Your task to perform on an android device: Go to location settings Image 0: 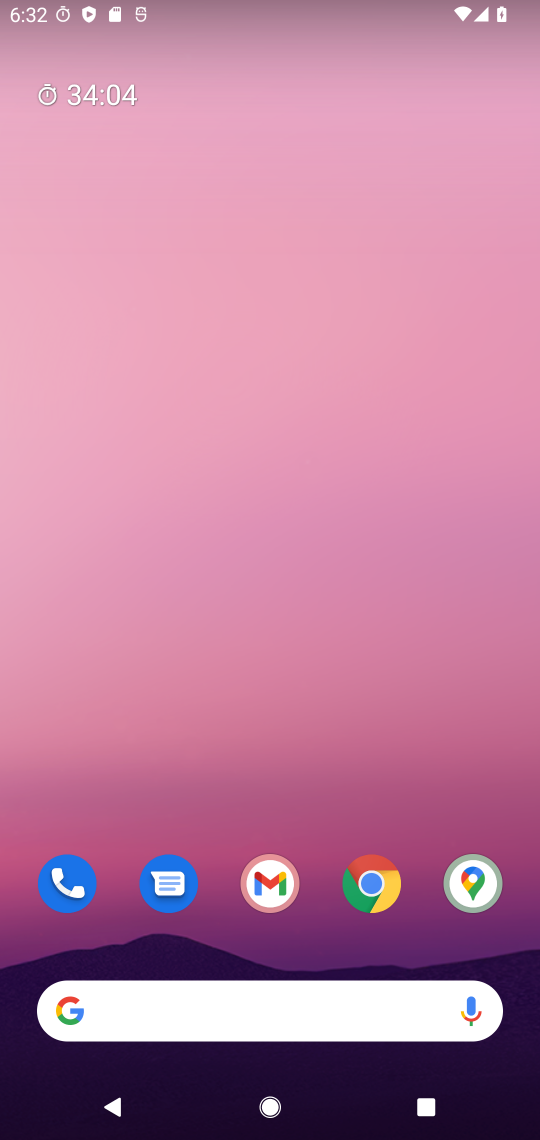
Step 0: drag from (286, 766) to (291, 220)
Your task to perform on an android device: Go to location settings Image 1: 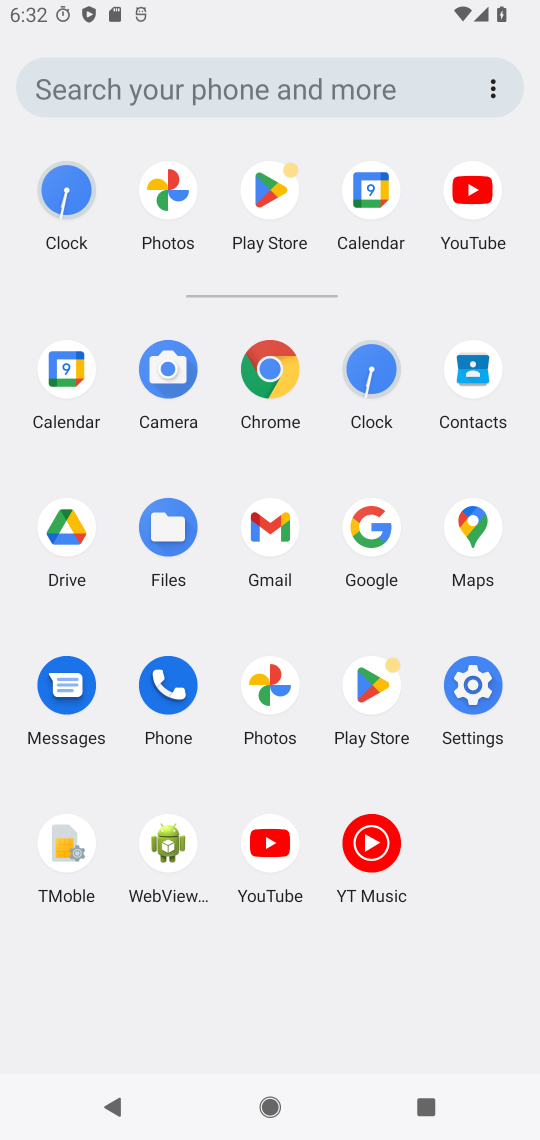
Step 1: click (445, 686)
Your task to perform on an android device: Go to location settings Image 2: 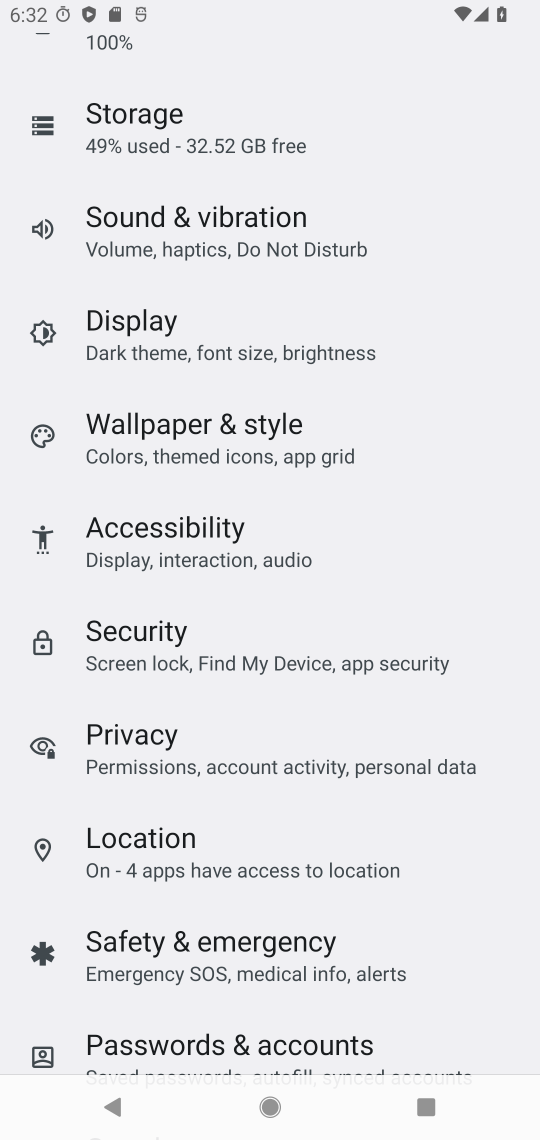
Step 2: click (223, 845)
Your task to perform on an android device: Go to location settings Image 3: 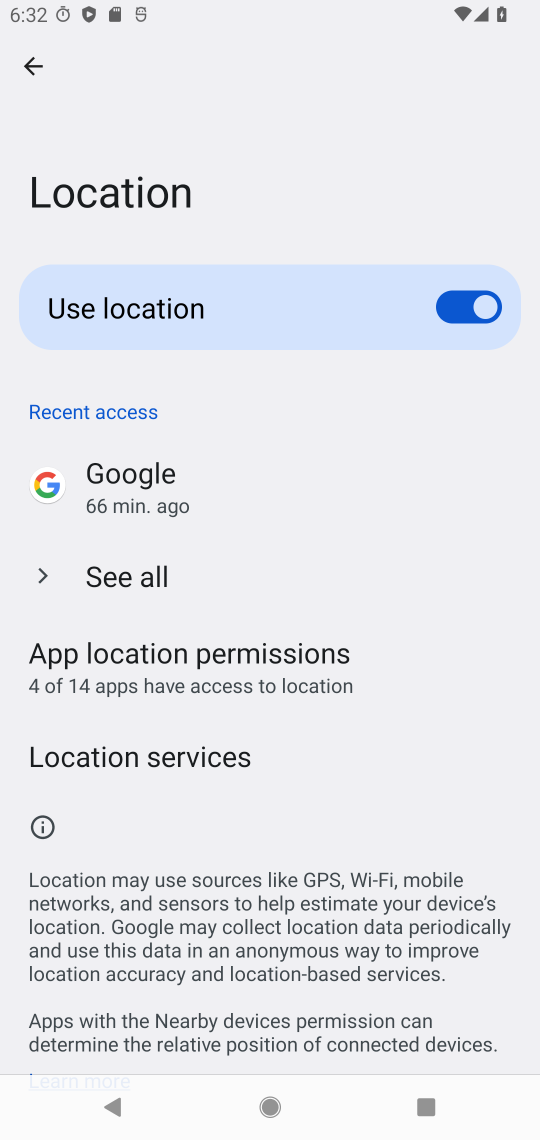
Step 3: task complete